Your task to perform on an android device: Open internet settings Image 0: 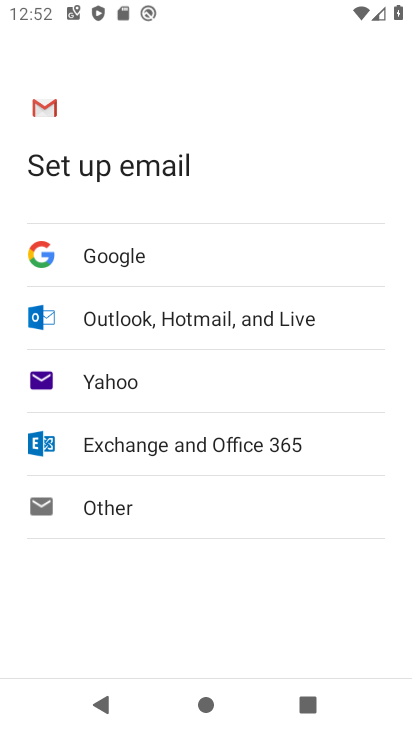
Step 0: press home button
Your task to perform on an android device: Open internet settings Image 1: 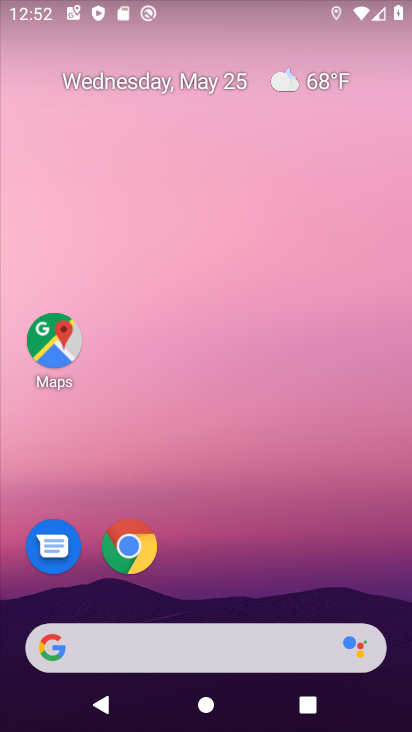
Step 1: drag from (281, 513) to (264, 245)
Your task to perform on an android device: Open internet settings Image 2: 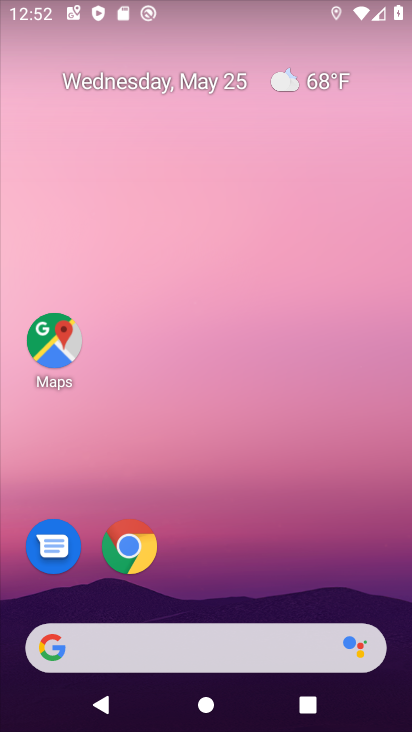
Step 2: drag from (265, 567) to (229, 95)
Your task to perform on an android device: Open internet settings Image 3: 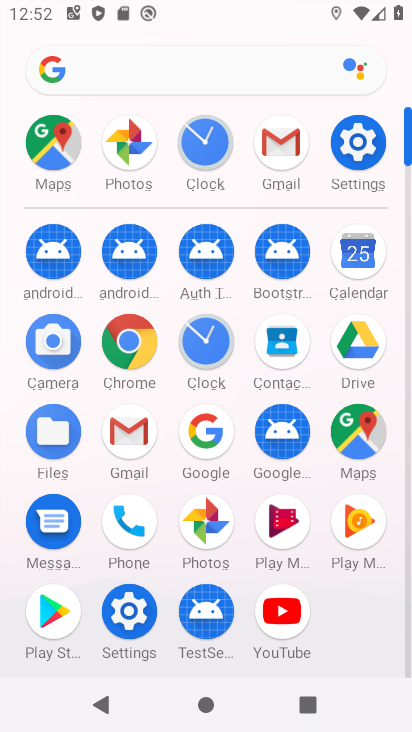
Step 3: click (365, 158)
Your task to perform on an android device: Open internet settings Image 4: 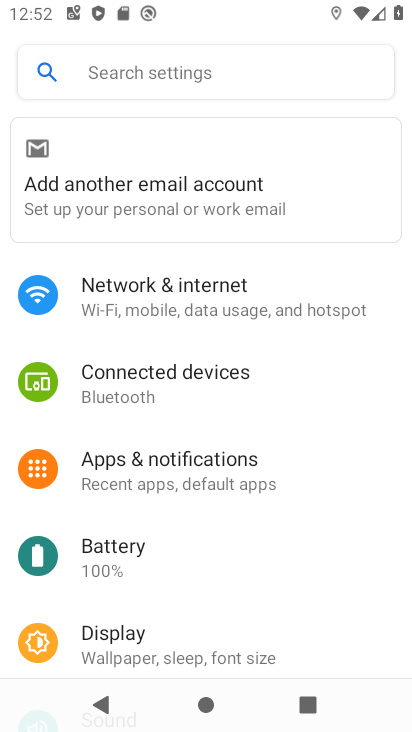
Step 4: click (208, 159)
Your task to perform on an android device: Open internet settings Image 5: 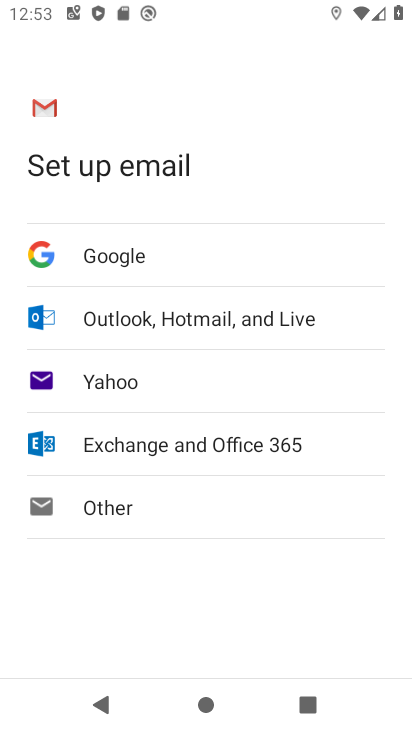
Step 5: click (226, 283)
Your task to perform on an android device: Open internet settings Image 6: 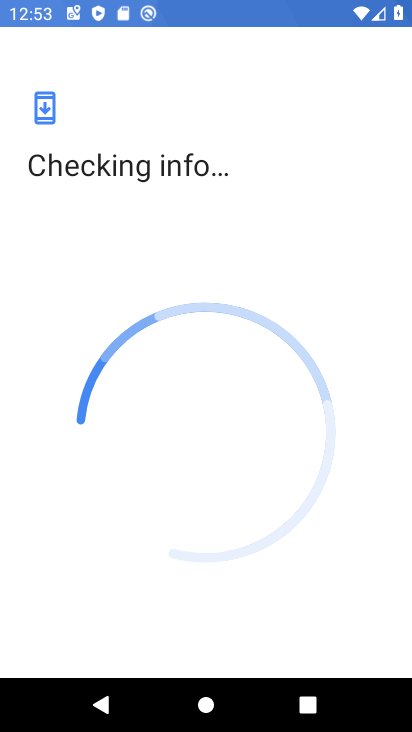
Step 6: press back button
Your task to perform on an android device: Open internet settings Image 7: 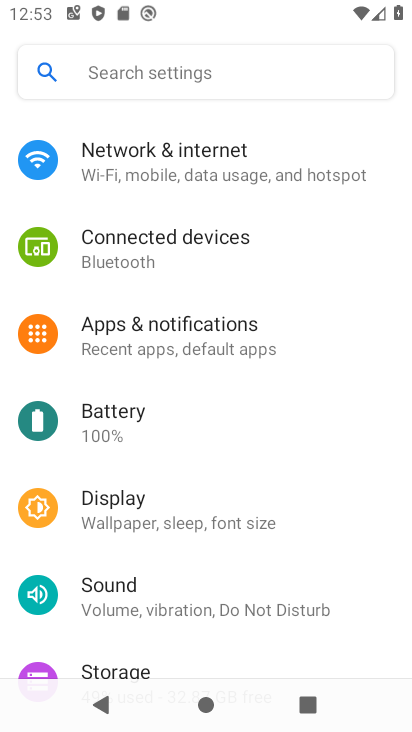
Step 7: press back button
Your task to perform on an android device: Open internet settings Image 8: 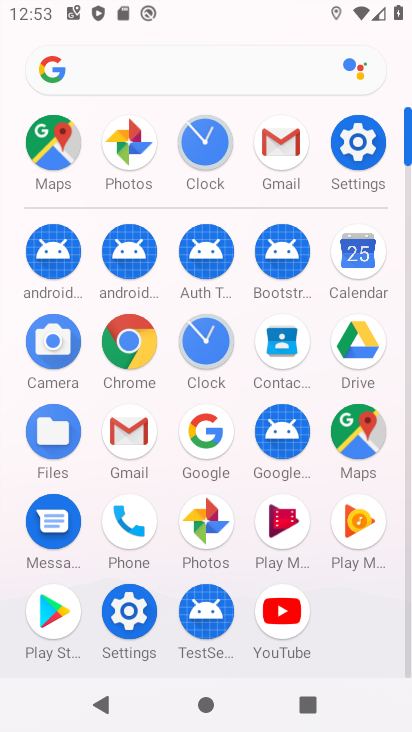
Step 8: click (348, 150)
Your task to perform on an android device: Open internet settings Image 9: 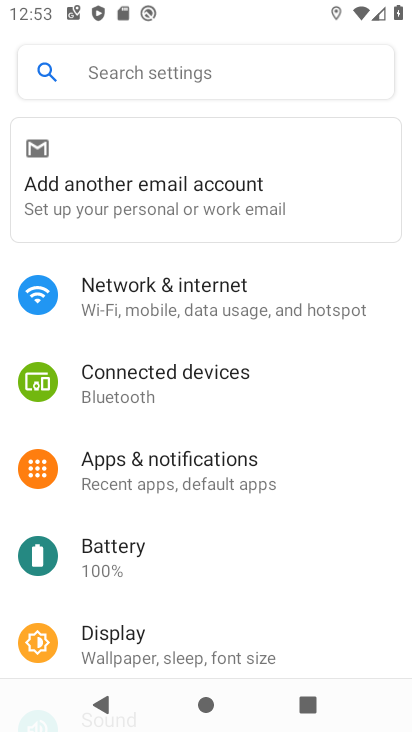
Step 9: click (224, 166)
Your task to perform on an android device: Open internet settings Image 10: 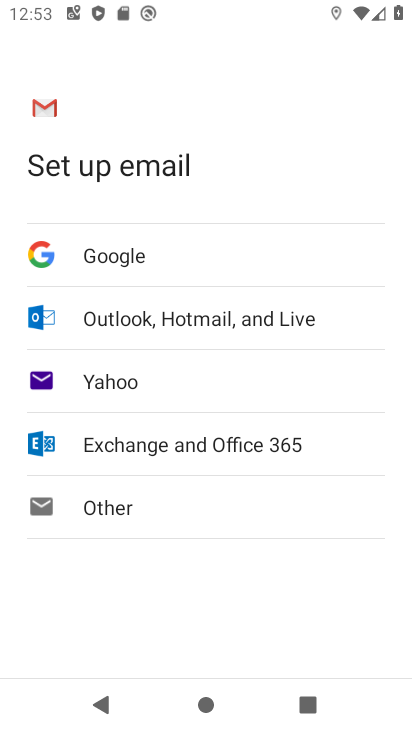
Step 10: click (229, 315)
Your task to perform on an android device: Open internet settings Image 11: 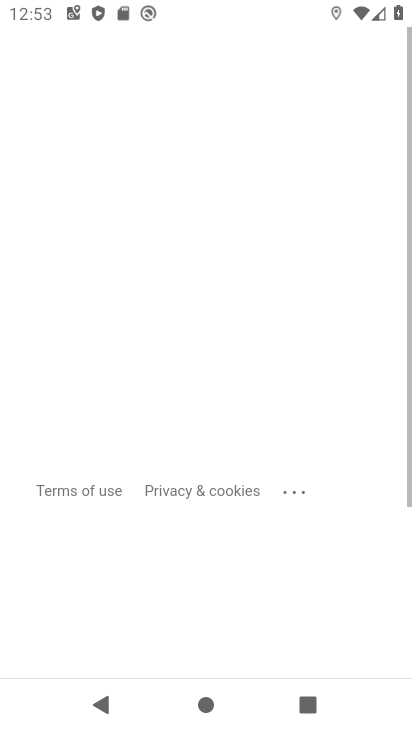
Step 11: task complete